Your task to perform on an android device: turn on data saver in the chrome app Image 0: 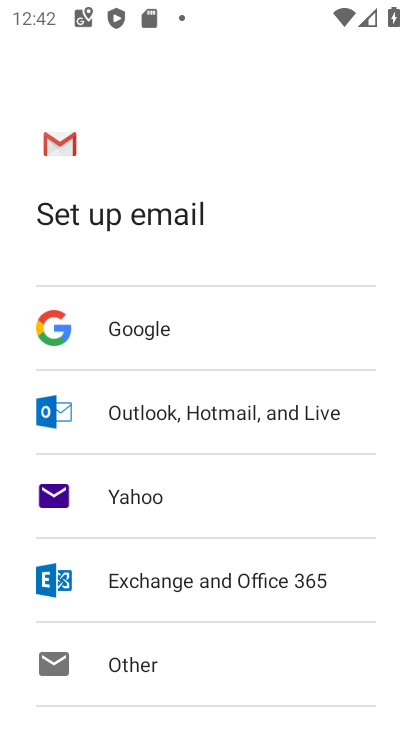
Step 0: press home button
Your task to perform on an android device: turn on data saver in the chrome app Image 1: 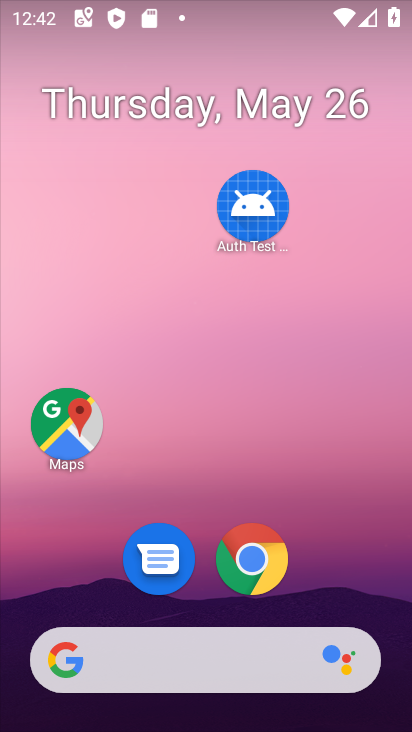
Step 1: click (252, 578)
Your task to perform on an android device: turn on data saver in the chrome app Image 2: 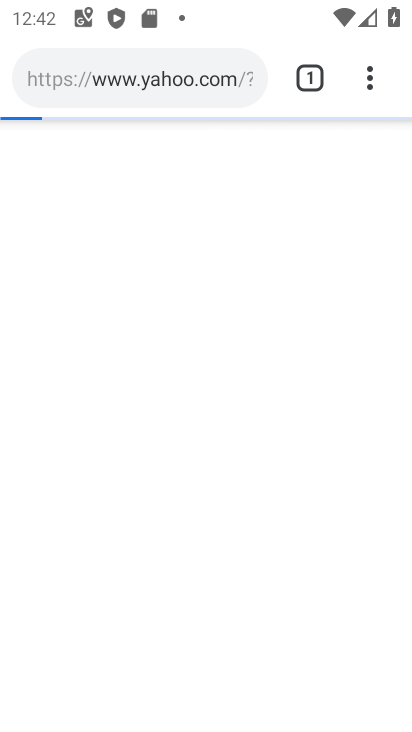
Step 2: click (380, 80)
Your task to perform on an android device: turn on data saver in the chrome app Image 3: 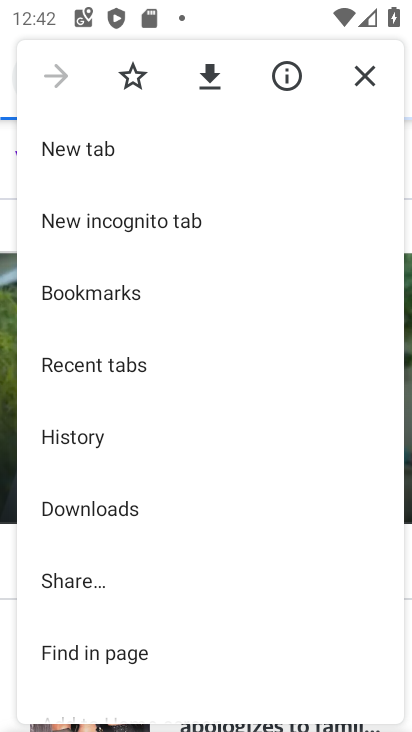
Step 3: drag from (173, 574) to (153, 125)
Your task to perform on an android device: turn on data saver in the chrome app Image 4: 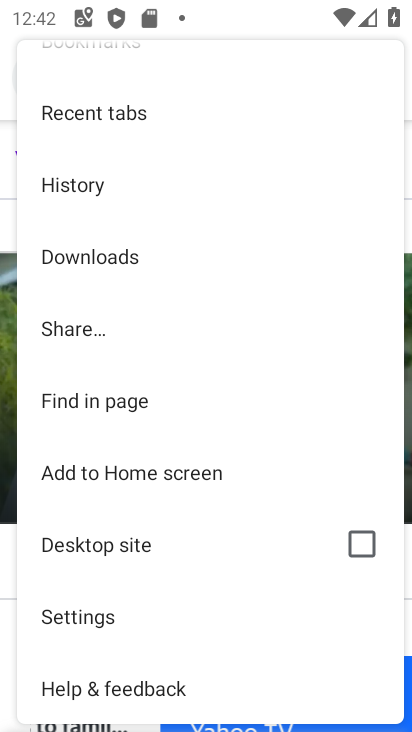
Step 4: click (106, 603)
Your task to perform on an android device: turn on data saver in the chrome app Image 5: 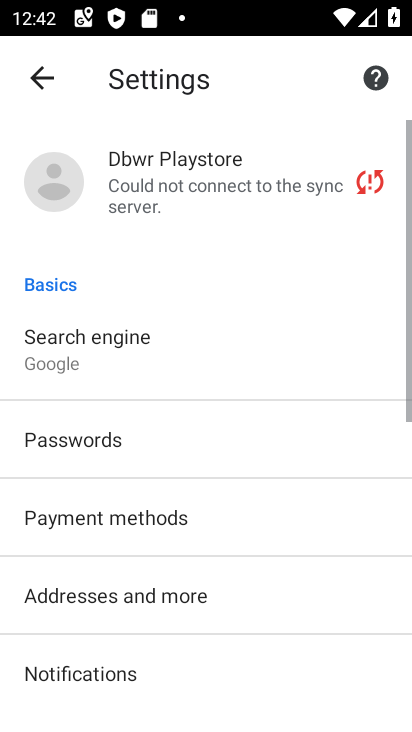
Step 5: drag from (233, 609) to (212, 209)
Your task to perform on an android device: turn on data saver in the chrome app Image 6: 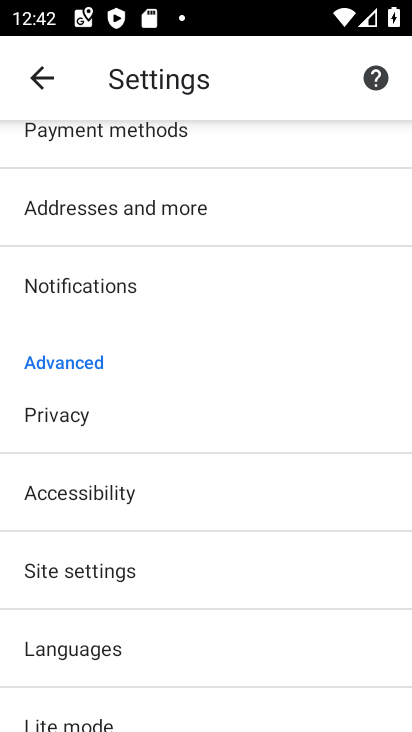
Step 6: drag from (168, 679) to (137, 366)
Your task to perform on an android device: turn on data saver in the chrome app Image 7: 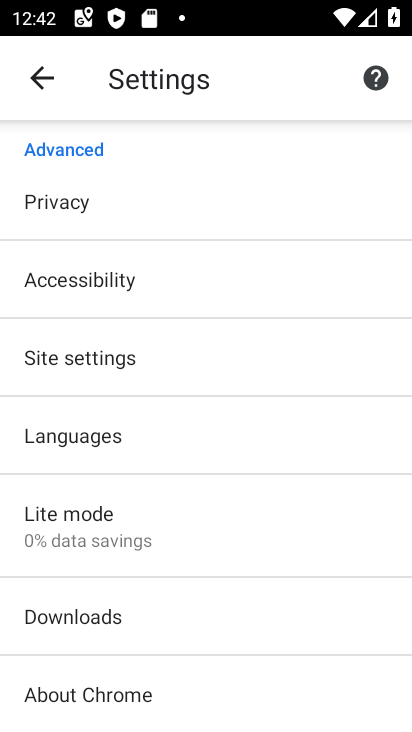
Step 7: click (112, 526)
Your task to perform on an android device: turn on data saver in the chrome app Image 8: 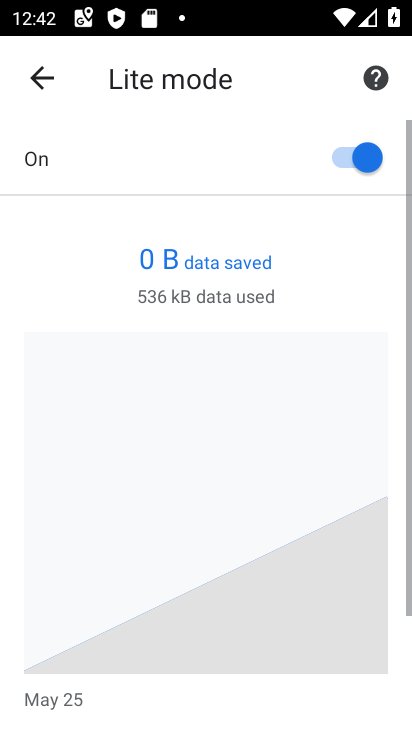
Step 8: task complete